Your task to perform on an android device: search for starred emails in the gmail app Image 0: 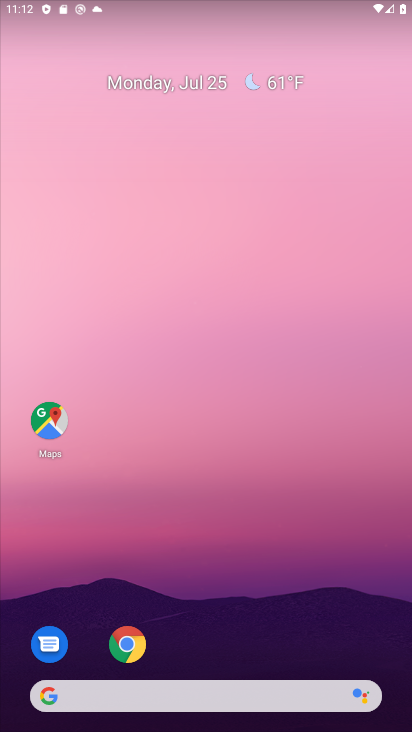
Step 0: drag from (159, 618) to (152, 252)
Your task to perform on an android device: search for starred emails in the gmail app Image 1: 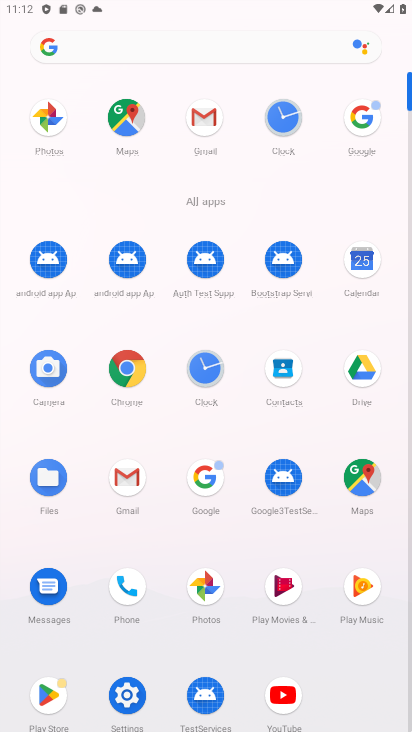
Step 1: click (124, 475)
Your task to perform on an android device: search for starred emails in the gmail app Image 2: 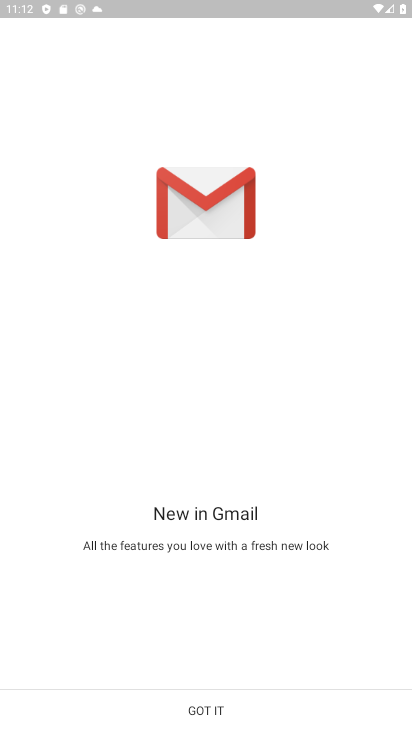
Step 2: click (193, 706)
Your task to perform on an android device: search for starred emails in the gmail app Image 3: 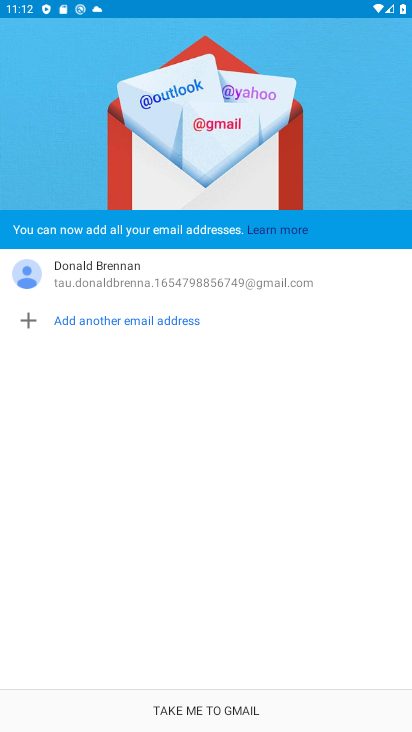
Step 3: click (193, 706)
Your task to perform on an android device: search for starred emails in the gmail app Image 4: 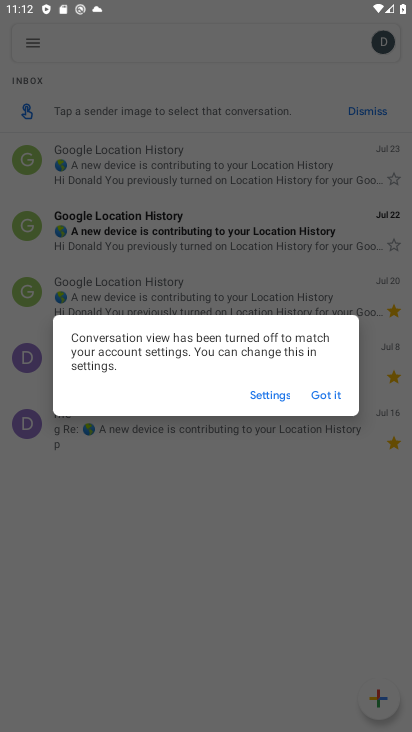
Step 4: click (234, 493)
Your task to perform on an android device: search for starred emails in the gmail app Image 5: 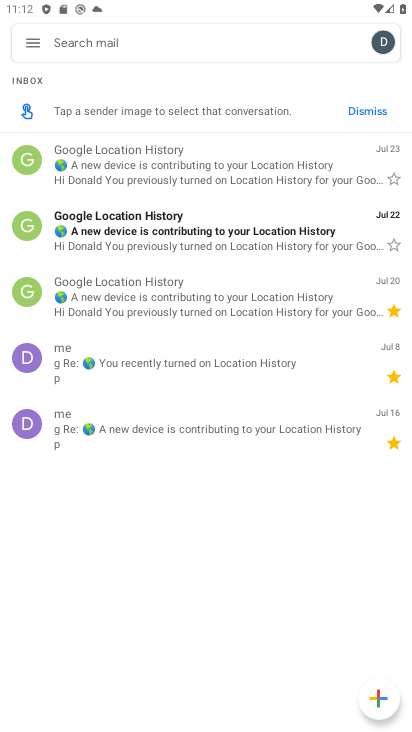
Step 5: click (26, 36)
Your task to perform on an android device: search for starred emails in the gmail app Image 6: 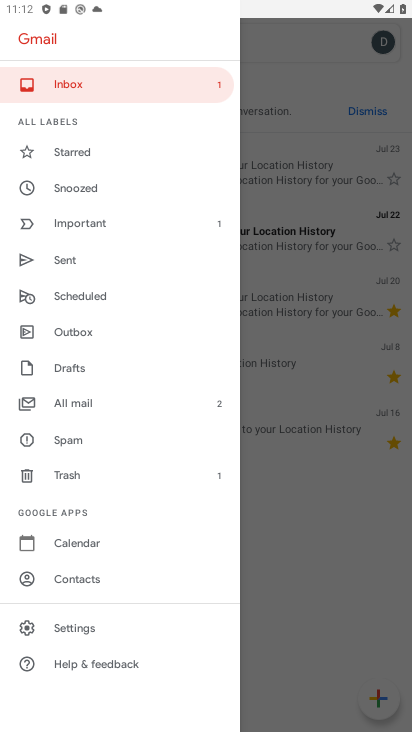
Step 6: click (88, 153)
Your task to perform on an android device: search for starred emails in the gmail app Image 7: 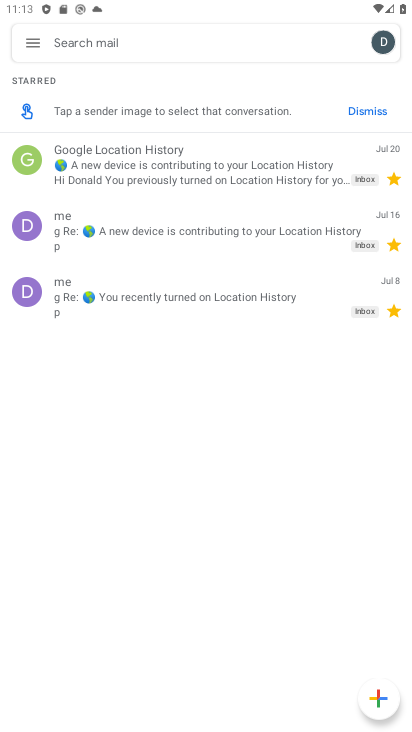
Step 7: task complete